Your task to perform on an android device: Show me productivity apps on the Play Store Image 0: 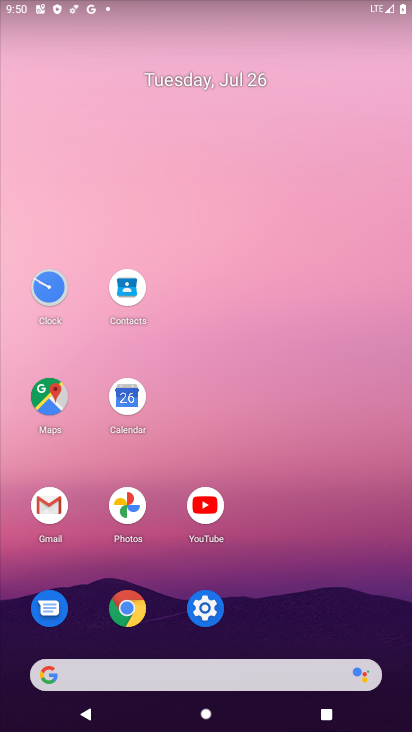
Step 0: drag from (270, 586) to (222, 88)
Your task to perform on an android device: Show me productivity apps on the Play Store Image 1: 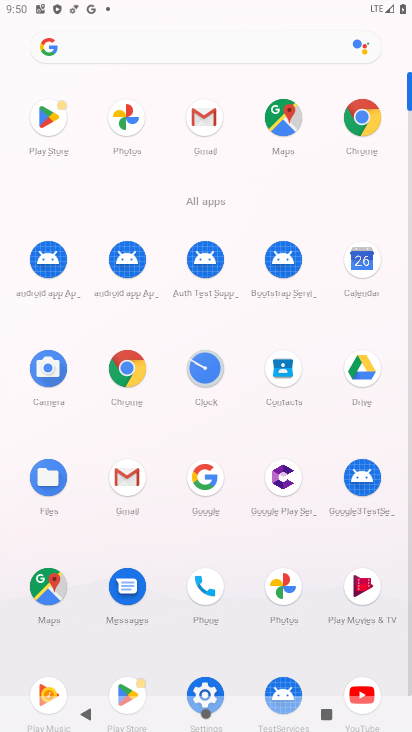
Step 1: drag from (242, 648) to (228, 129)
Your task to perform on an android device: Show me productivity apps on the Play Store Image 2: 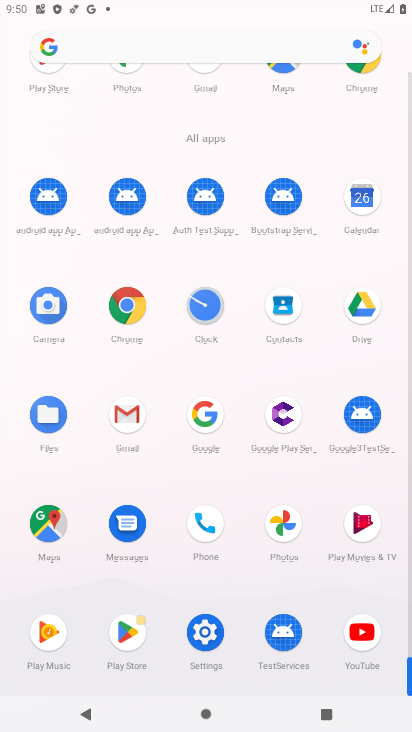
Step 2: click (125, 630)
Your task to perform on an android device: Show me productivity apps on the Play Store Image 3: 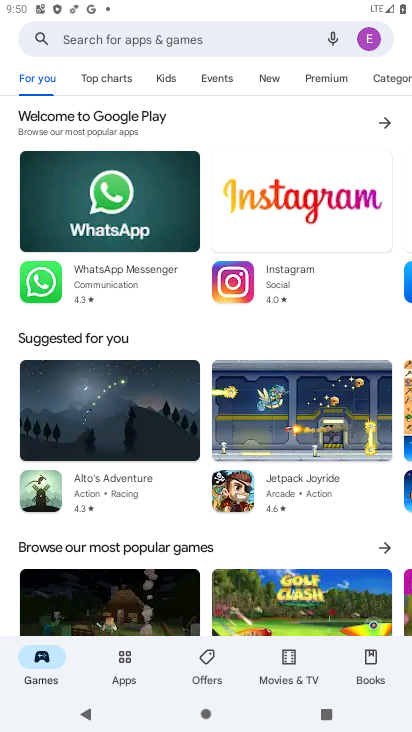
Step 3: click (122, 665)
Your task to perform on an android device: Show me productivity apps on the Play Store Image 4: 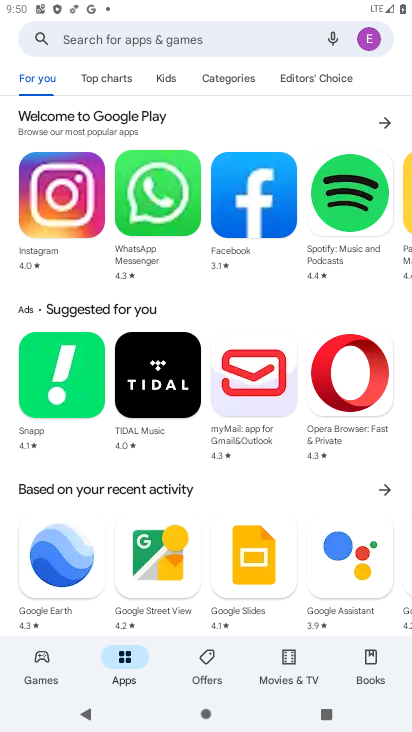
Step 4: task complete